Your task to perform on an android device: open app "Yahoo Mail" (install if not already installed) and go to login screen Image 0: 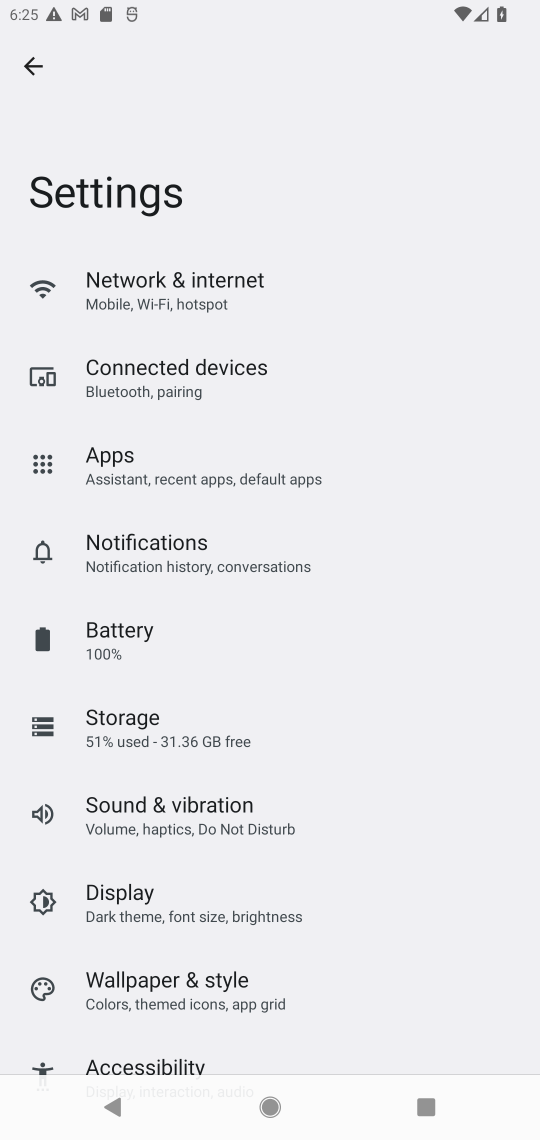
Step 0: press home button
Your task to perform on an android device: open app "Yahoo Mail" (install if not already installed) and go to login screen Image 1: 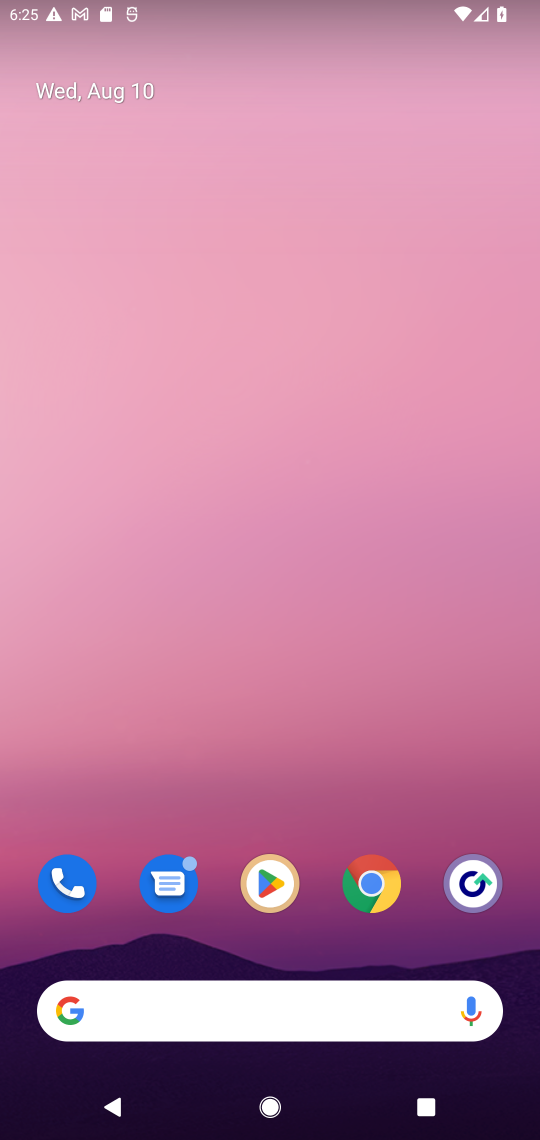
Step 1: click (291, 867)
Your task to perform on an android device: open app "Yahoo Mail" (install if not already installed) and go to login screen Image 2: 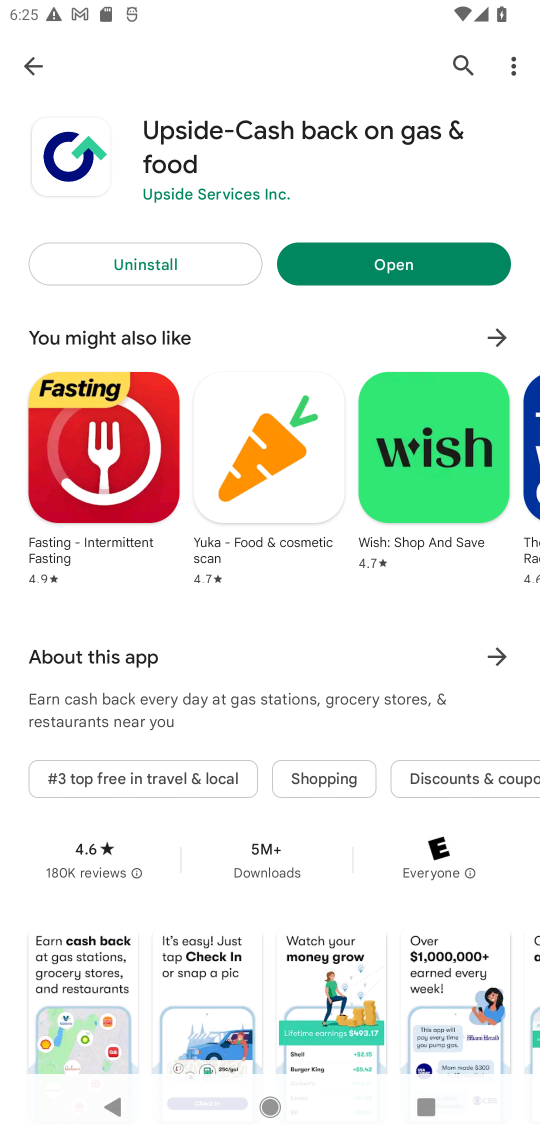
Step 2: click (459, 66)
Your task to perform on an android device: open app "Yahoo Mail" (install if not already installed) and go to login screen Image 3: 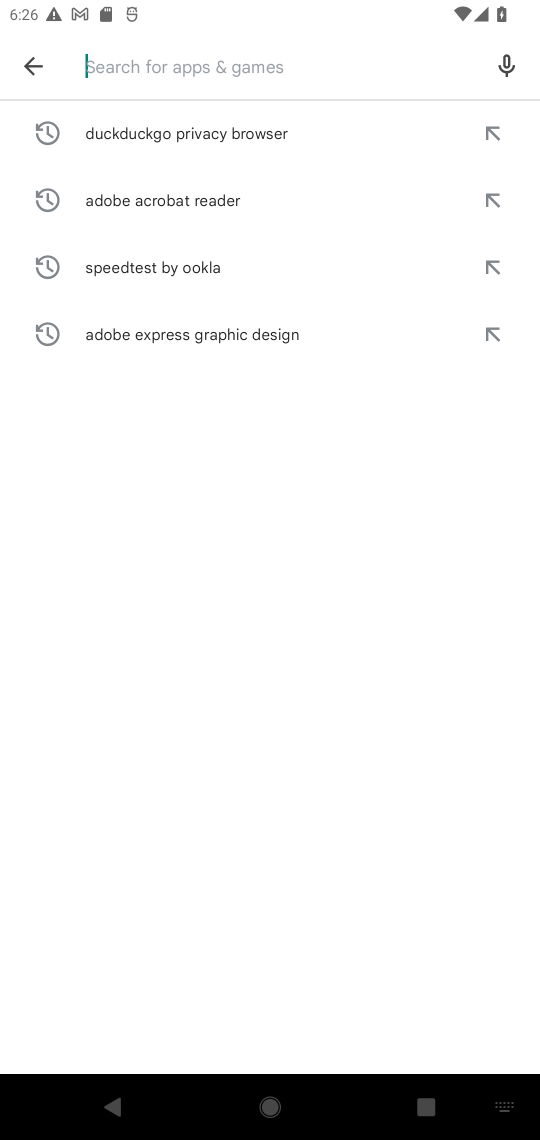
Step 3: type "Yahoo Mail"
Your task to perform on an android device: open app "Yahoo Mail" (install if not already installed) and go to login screen Image 4: 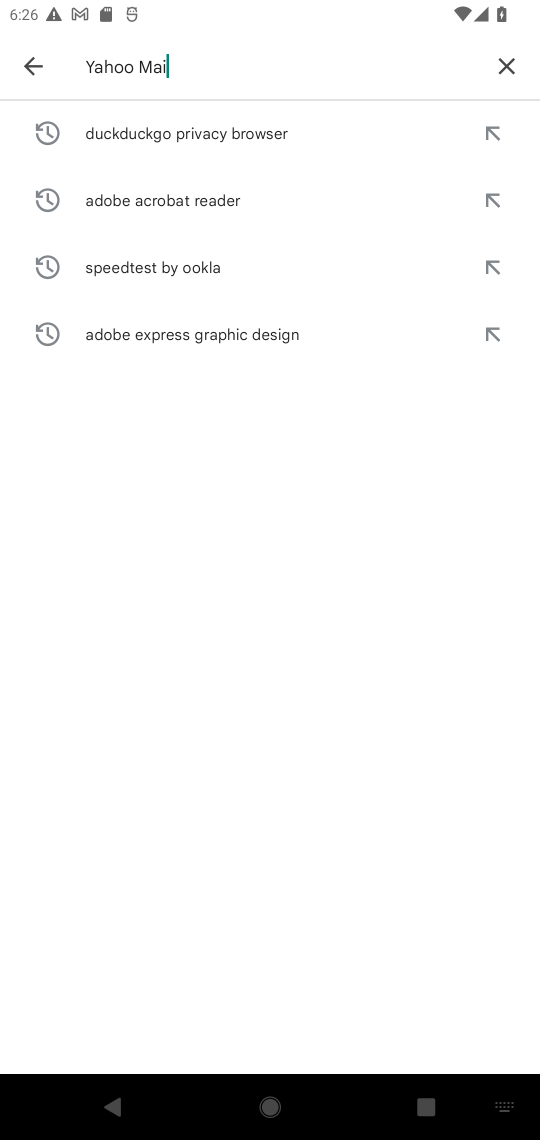
Step 4: type ""
Your task to perform on an android device: open app "Yahoo Mail" (install if not already installed) and go to login screen Image 5: 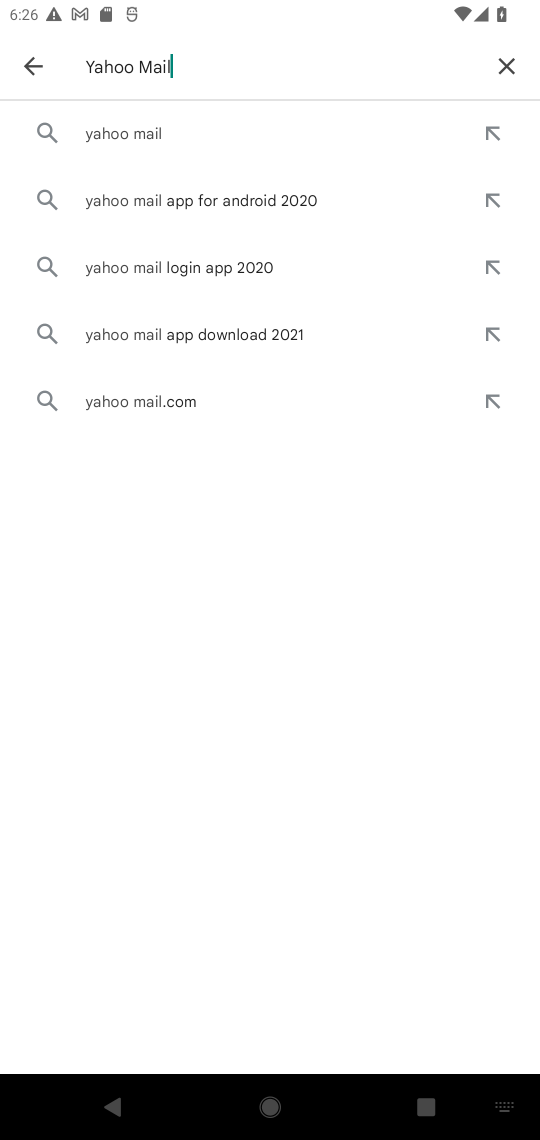
Step 5: click (213, 143)
Your task to perform on an android device: open app "Yahoo Mail" (install if not already installed) and go to login screen Image 6: 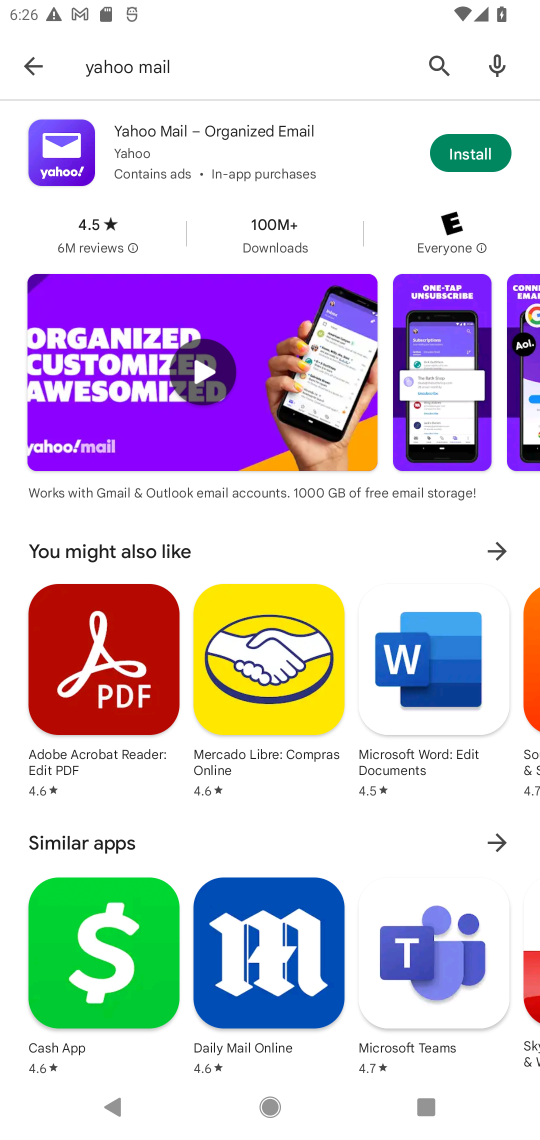
Step 6: click (456, 143)
Your task to perform on an android device: open app "Yahoo Mail" (install if not already installed) and go to login screen Image 7: 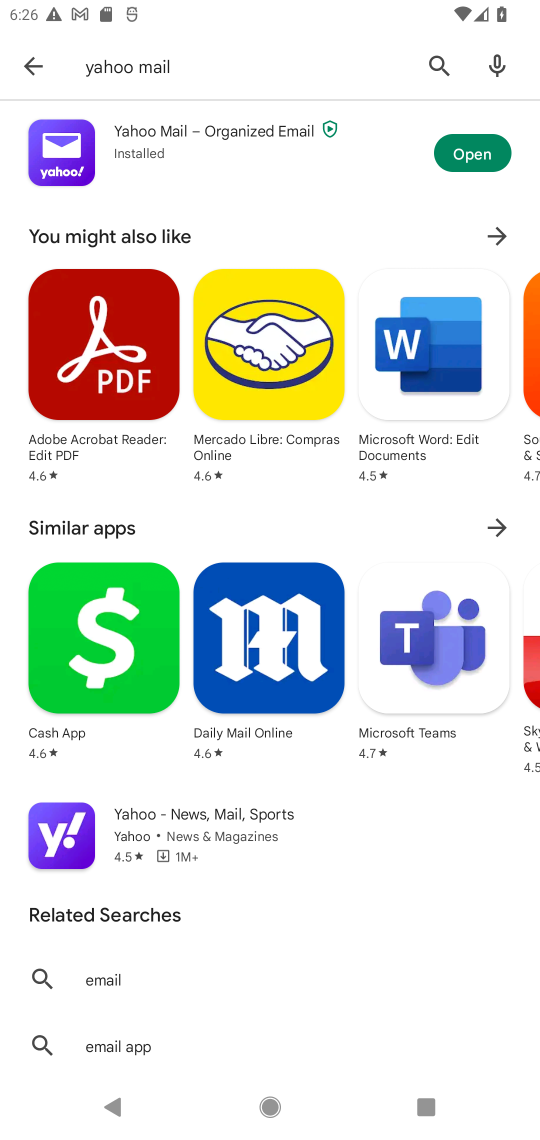
Step 7: click (474, 150)
Your task to perform on an android device: open app "Yahoo Mail" (install if not already installed) and go to login screen Image 8: 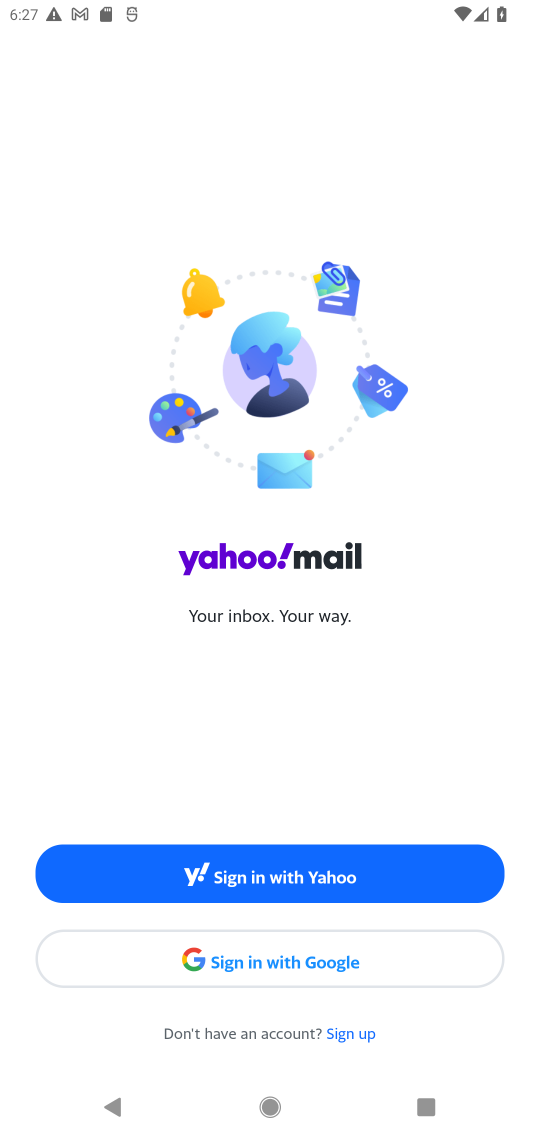
Step 8: task complete